Your task to perform on an android device: Open calendar and show me the third week of next month Image 0: 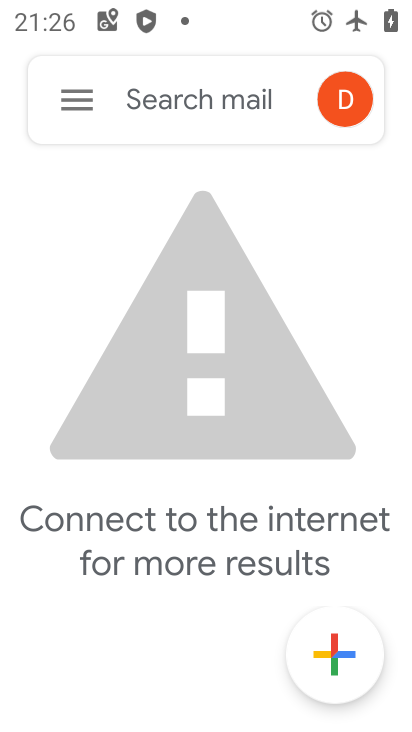
Step 0: press home button
Your task to perform on an android device: Open calendar and show me the third week of next month Image 1: 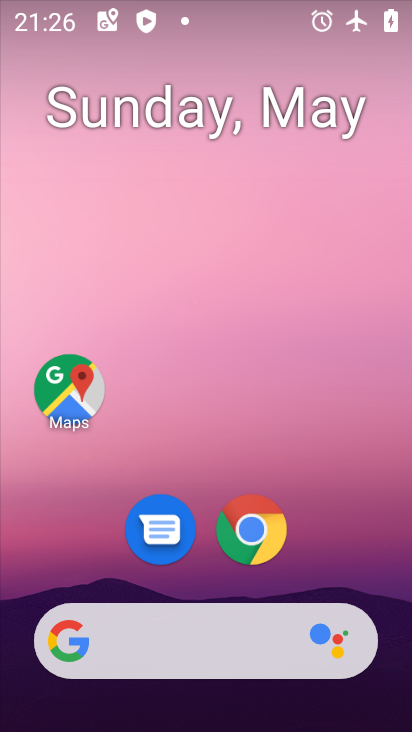
Step 1: drag from (353, 601) to (387, 17)
Your task to perform on an android device: Open calendar and show me the third week of next month Image 2: 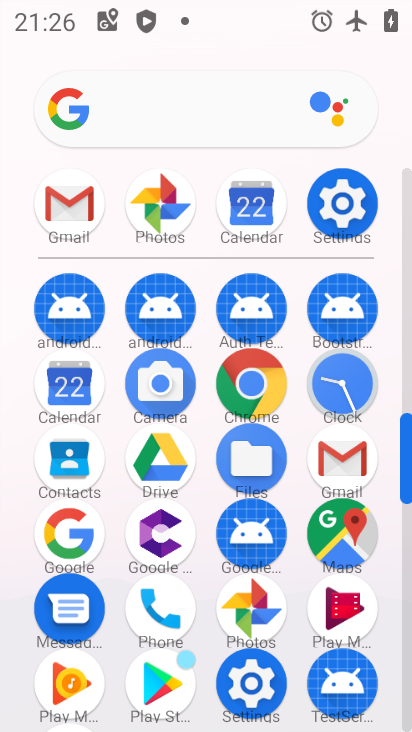
Step 2: click (233, 208)
Your task to perform on an android device: Open calendar and show me the third week of next month Image 3: 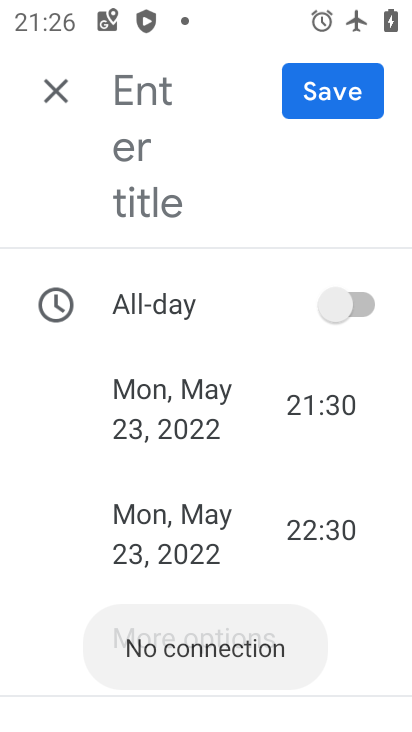
Step 3: click (61, 101)
Your task to perform on an android device: Open calendar and show me the third week of next month Image 4: 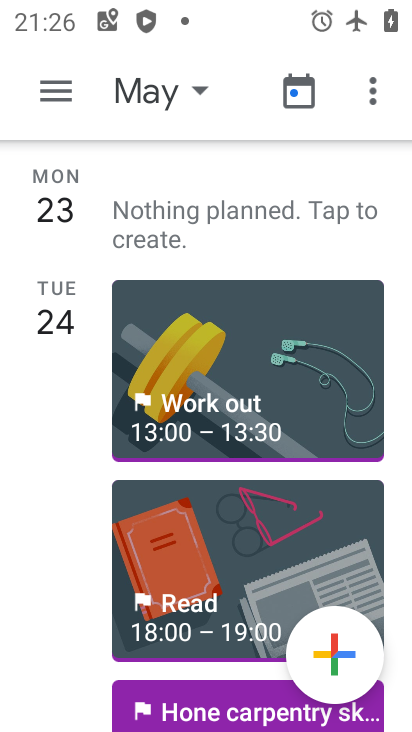
Step 4: click (198, 84)
Your task to perform on an android device: Open calendar and show me the third week of next month Image 5: 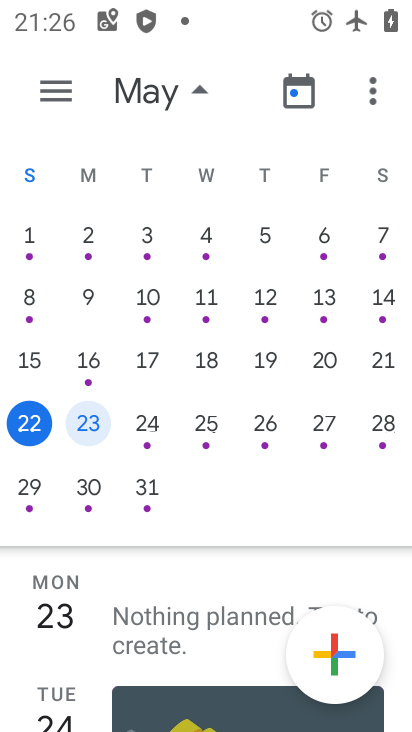
Step 5: drag from (383, 344) to (0, 53)
Your task to perform on an android device: Open calendar and show me the third week of next month Image 6: 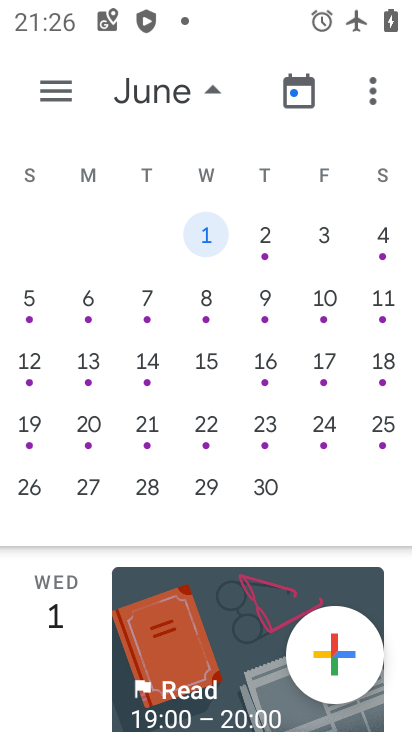
Step 6: click (63, 98)
Your task to perform on an android device: Open calendar and show me the third week of next month Image 7: 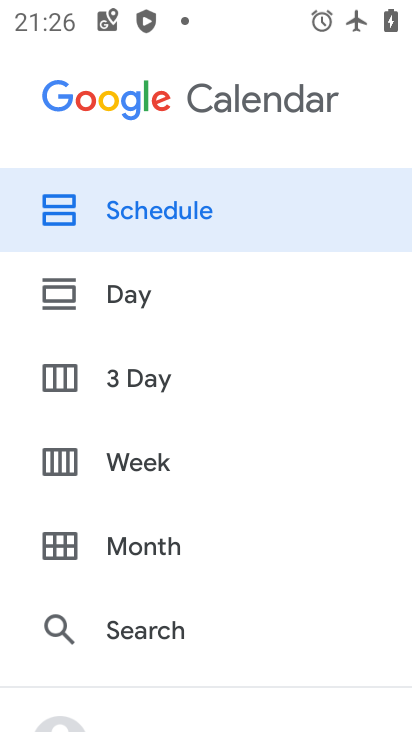
Step 7: click (142, 469)
Your task to perform on an android device: Open calendar and show me the third week of next month Image 8: 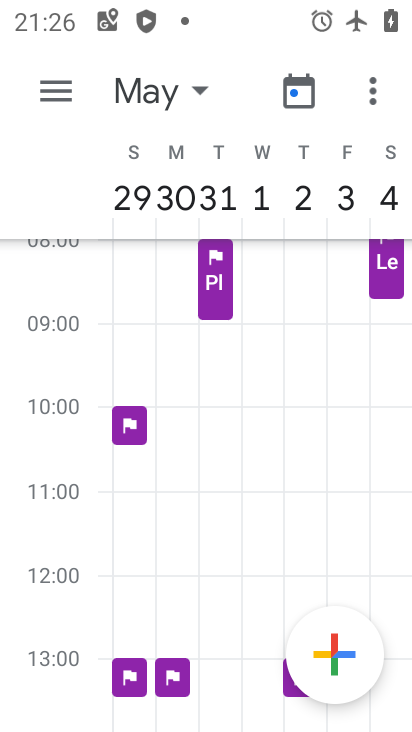
Step 8: task complete